Your task to perform on an android device: Open the stopwatch Image 0: 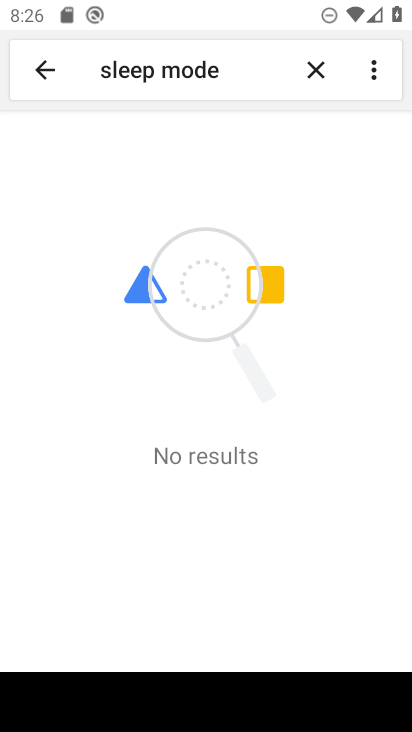
Step 0: press home button
Your task to perform on an android device: Open the stopwatch Image 1: 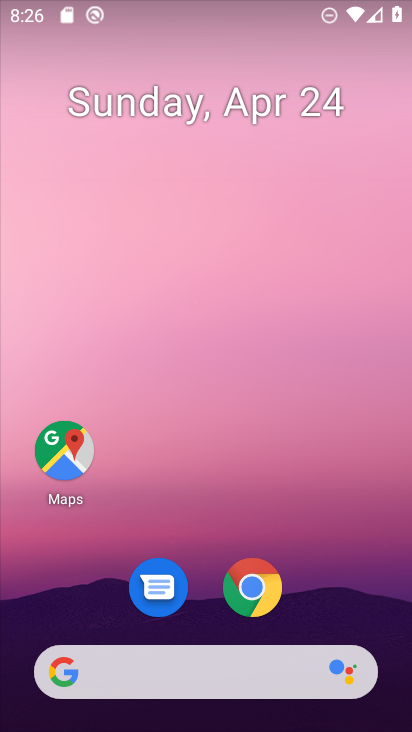
Step 1: drag from (327, 471) to (347, 127)
Your task to perform on an android device: Open the stopwatch Image 2: 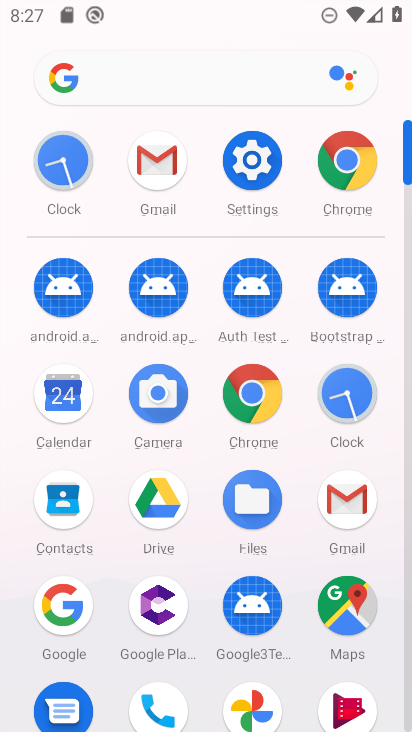
Step 2: click (334, 407)
Your task to perform on an android device: Open the stopwatch Image 3: 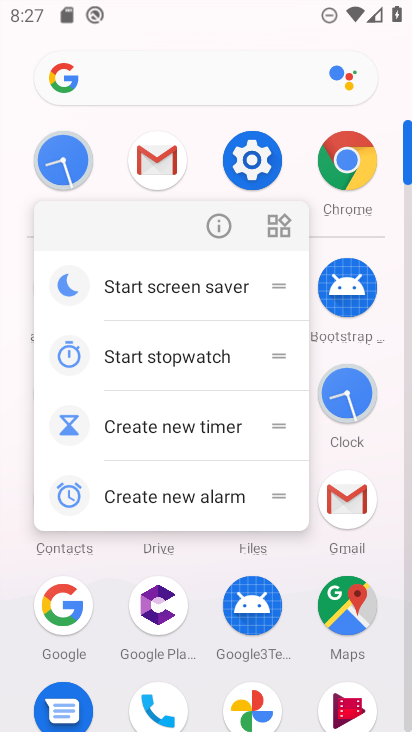
Step 3: click (334, 407)
Your task to perform on an android device: Open the stopwatch Image 4: 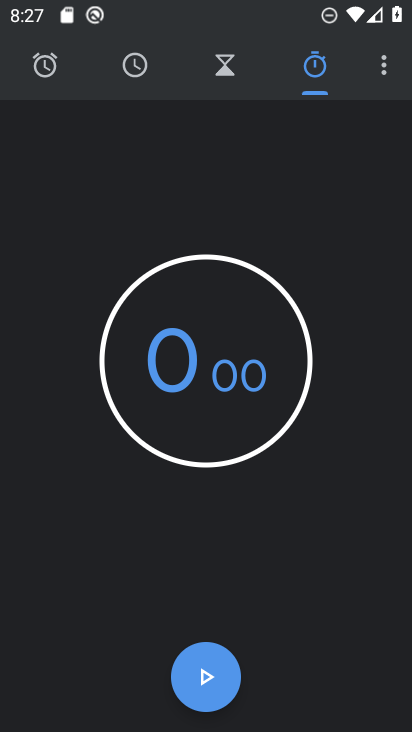
Step 4: task complete